Your task to perform on an android device: turn off priority inbox in the gmail app Image 0: 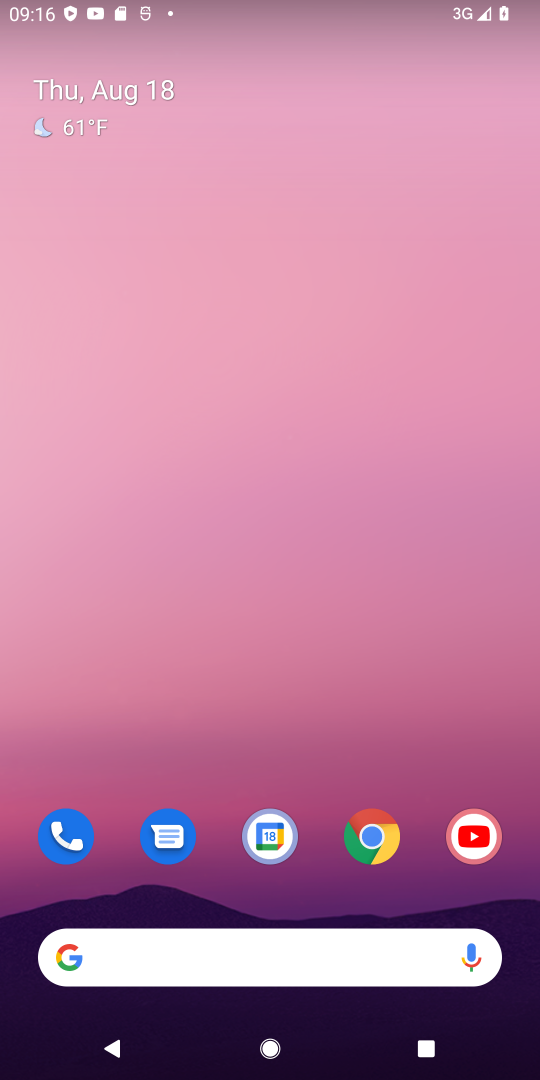
Step 0: drag from (263, 687) to (352, 45)
Your task to perform on an android device: turn off priority inbox in the gmail app Image 1: 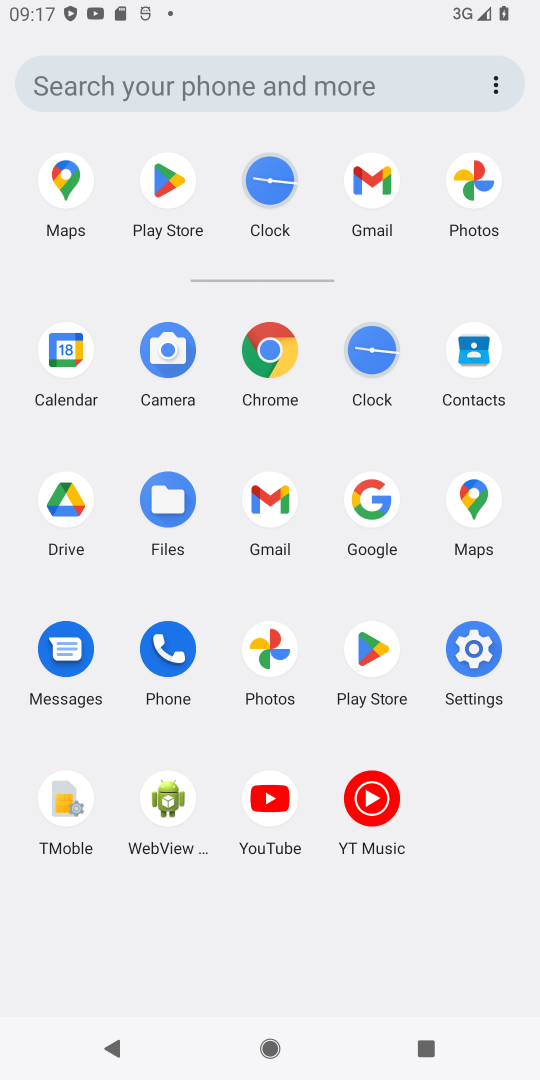
Step 1: click (272, 479)
Your task to perform on an android device: turn off priority inbox in the gmail app Image 2: 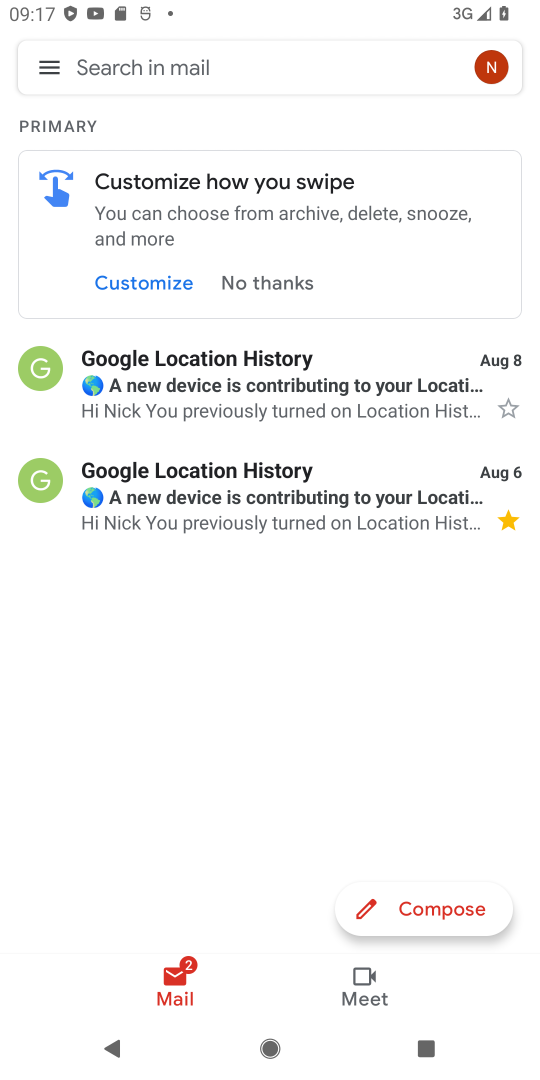
Step 2: click (56, 61)
Your task to perform on an android device: turn off priority inbox in the gmail app Image 3: 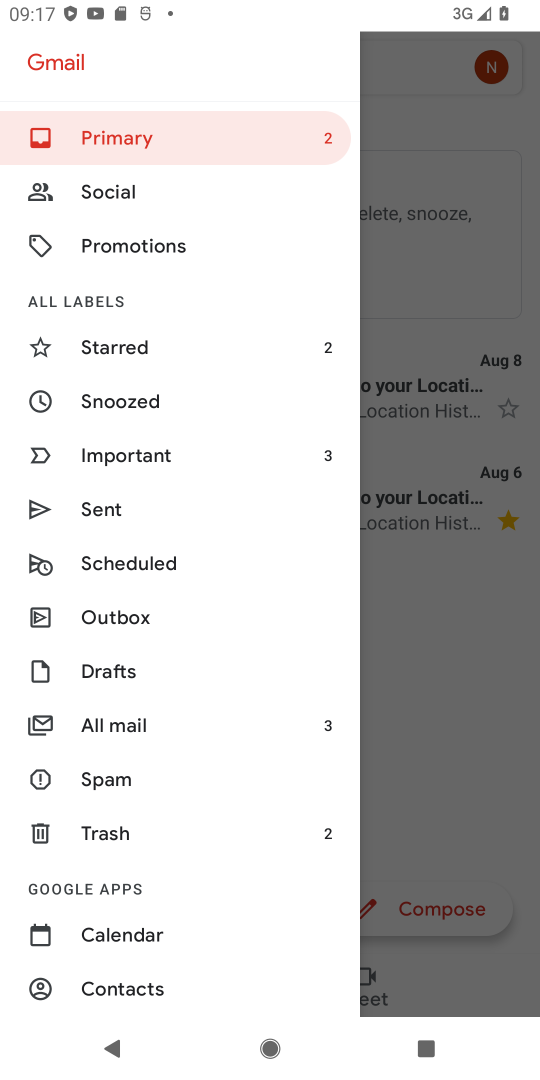
Step 3: drag from (182, 928) to (185, 240)
Your task to perform on an android device: turn off priority inbox in the gmail app Image 4: 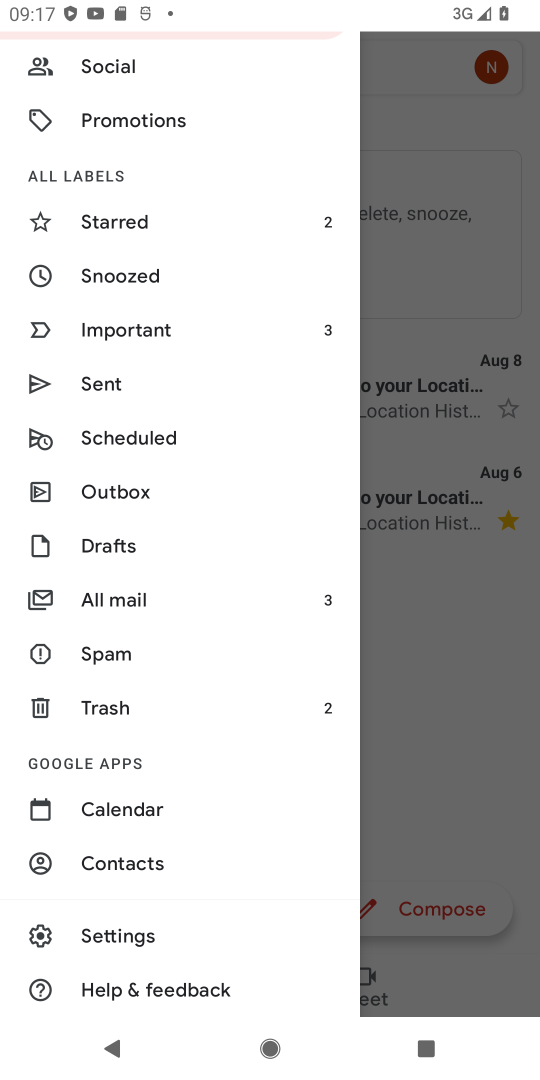
Step 4: click (115, 937)
Your task to perform on an android device: turn off priority inbox in the gmail app Image 5: 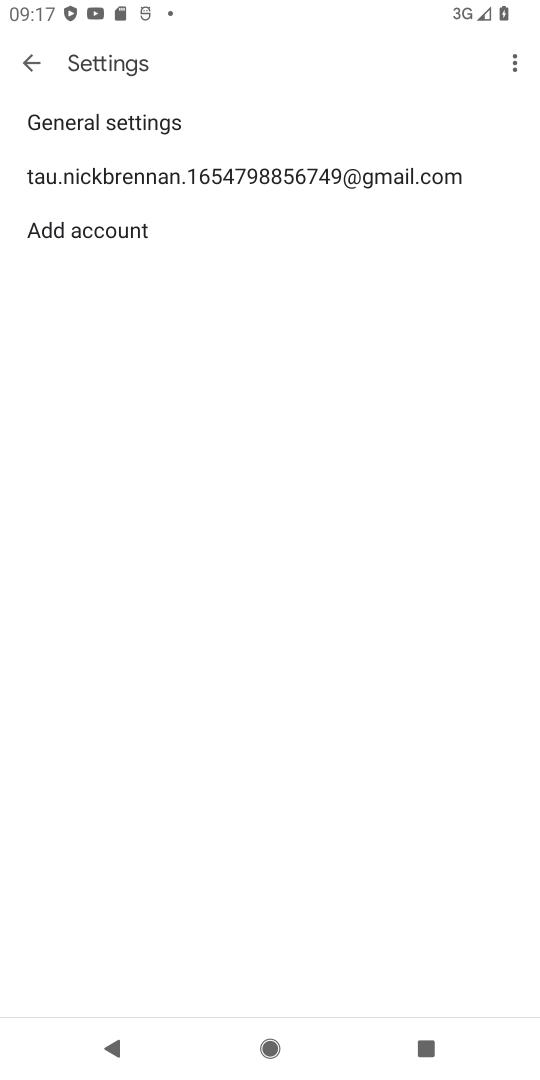
Step 5: click (292, 176)
Your task to perform on an android device: turn off priority inbox in the gmail app Image 6: 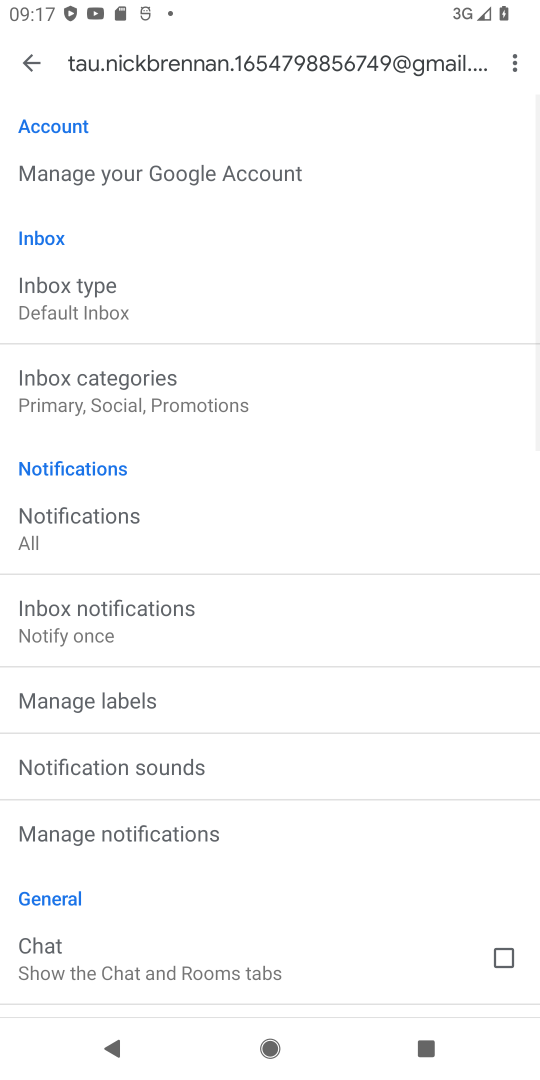
Step 6: click (86, 292)
Your task to perform on an android device: turn off priority inbox in the gmail app Image 7: 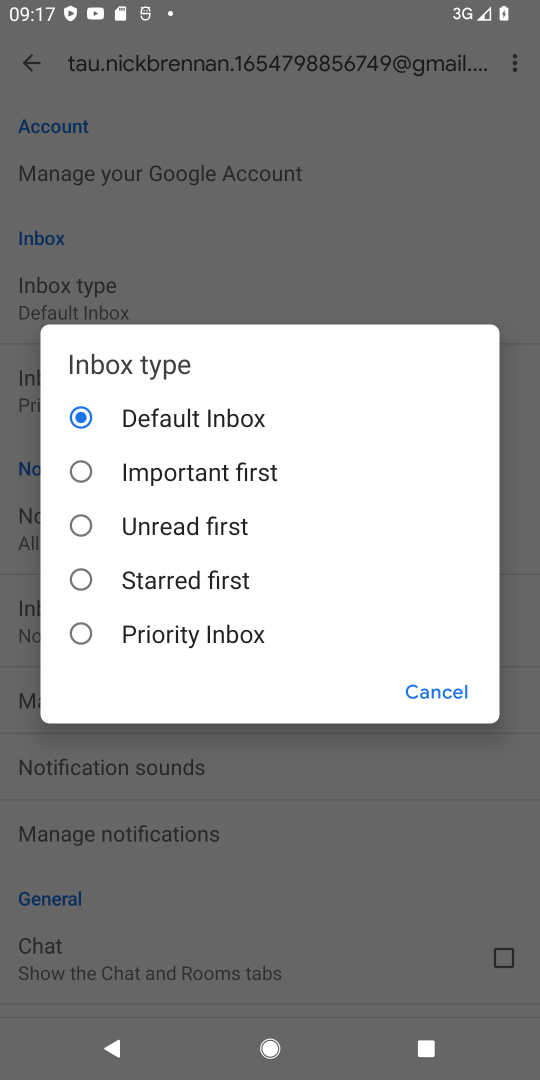
Step 7: task complete